Your task to perform on an android device: Search for vegetarian restaurants on Maps Image 0: 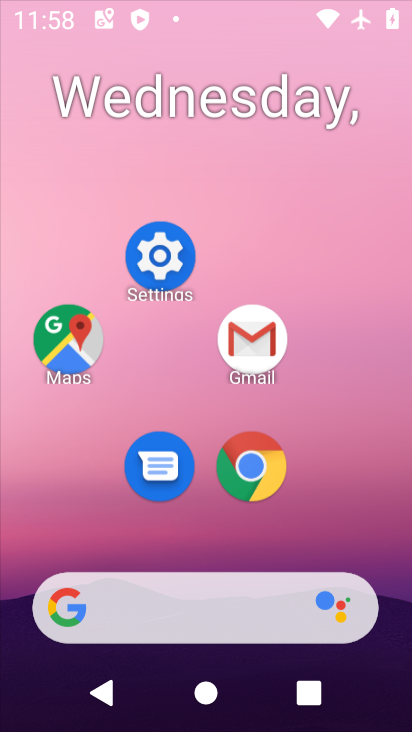
Step 0: drag from (233, 225) to (239, 84)
Your task to perform on an android device: Search for vegetarian restaurants on Maps Image 1: 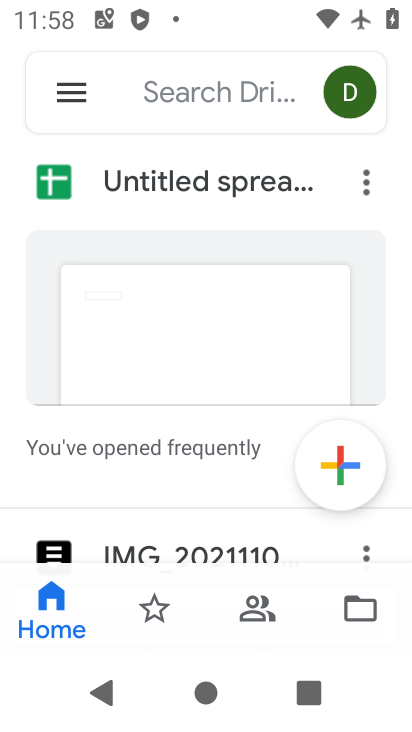
Step 1: drag from (253, 518) to (251, 144)
Your task to perform on an android device: Search for vegetarian restaurants on Maps Image 2: 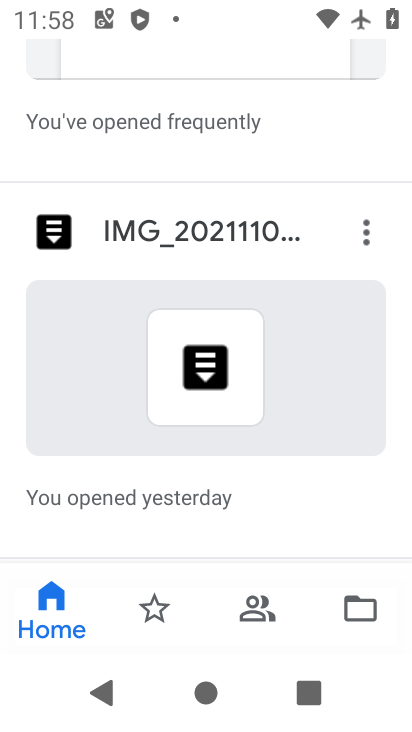
Step 2: drag from (218, 167) to (400, 434)
Your task to perform on an android device: Search for vegetarian restaurants on Maps Image 3: 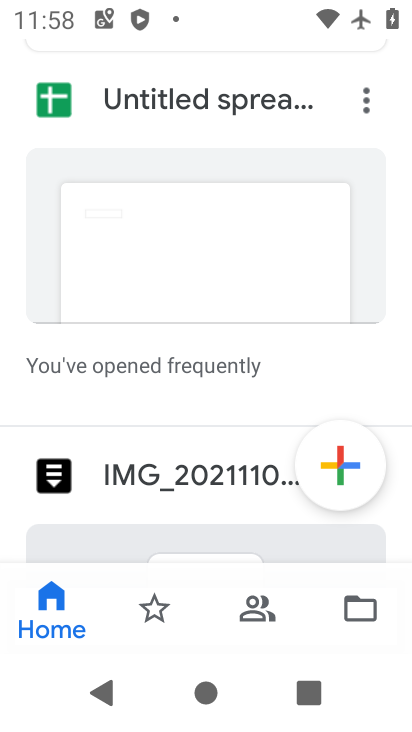
Step 3: press home button
Your task to perform on an android device: Search for vegetarian restaurants on Maps Image 4: 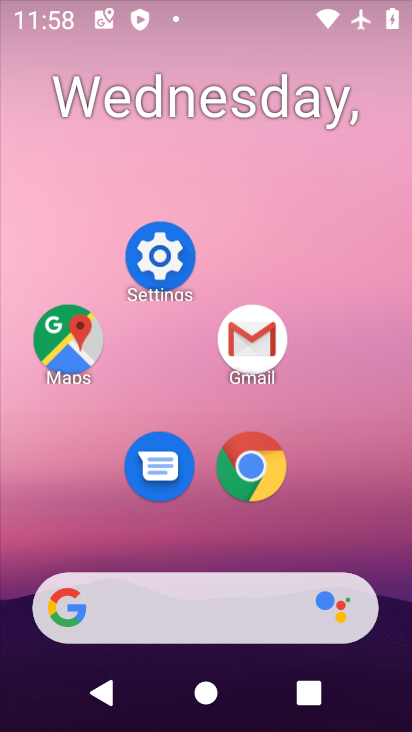
Step 4: drag from (191, 525) to (196, 233)
Your task to perform on an android device: Search for vegetarian restaurants on Maps Image 5: 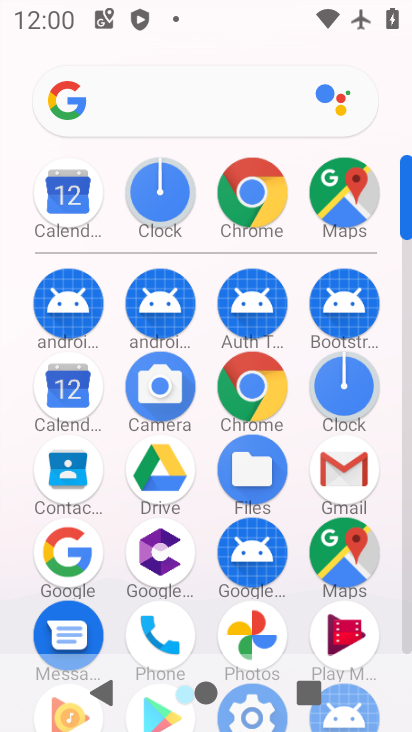
Step 5: click (313, 550)
Your task to perform on an android device: Search for vegetarian restaurants on Maps Image 6: 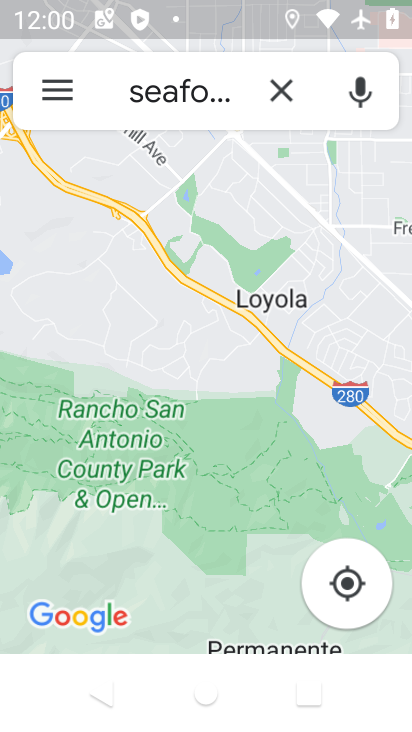
Step 6: drag from (139, 554) to (192, 157)
Your task to perform on an android device: Search for vegetarian restaurants on Maps Image 7: 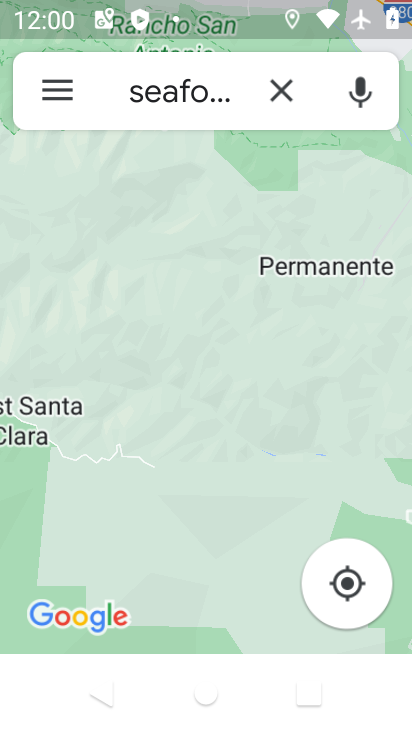
Step 7: drag from (179, 161) to (149, 560)
Your task to perform on an android device: Search for vegetarian restaurants on Maps Image 8: 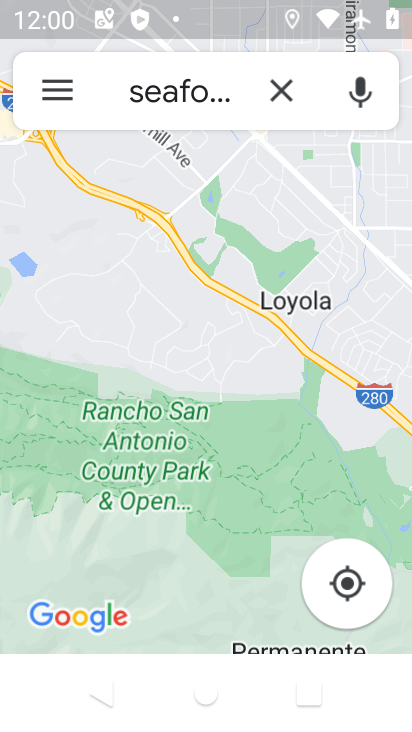
Step 8: drag from (150, 538) to (265, 269)
Your task to perform on an android device: Search for vegetarian restaurants on Maps Image 9: 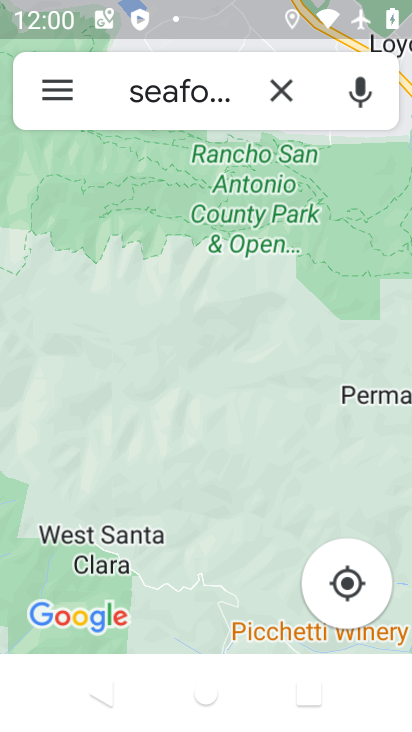
Step 9: click (303, 85)
Your task to perform on an android device: Search for vegetarian restaurants on Maps Image 10: 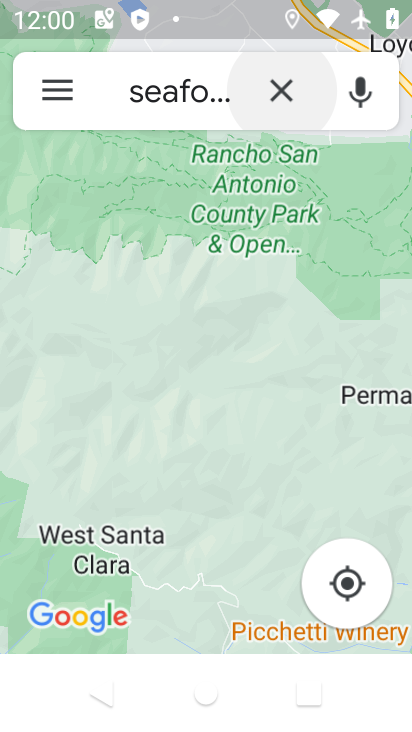
Step 10: click (292, 83)
Your task to perform on an android device: Search for vegetarian restaurants on Maps Image 11: 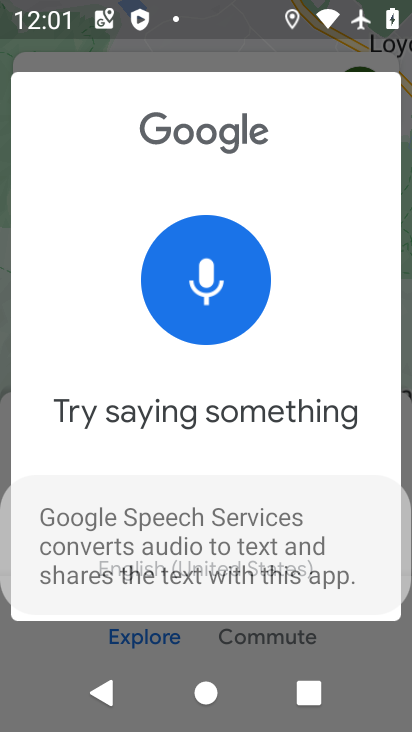
Step 11: click (215, 93)
Your task to perform on an android device: Search for vegetarian restaurants on Maps Image 12: 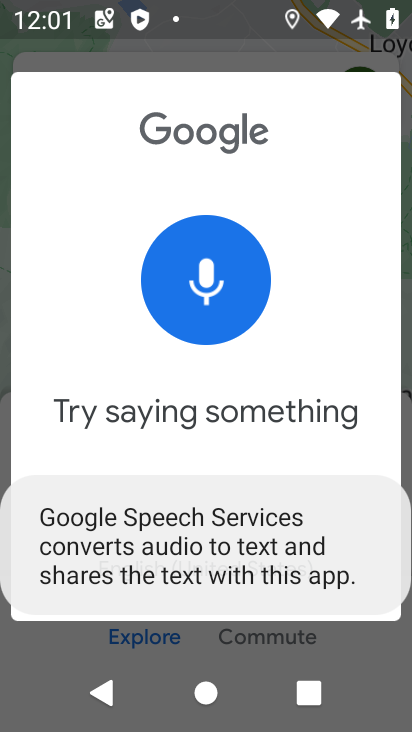
Step 12: drag from (179, 504) to (188, 453)
Your task to perform on an android device: Search for vegetarian restaurants on Maps Image 13: 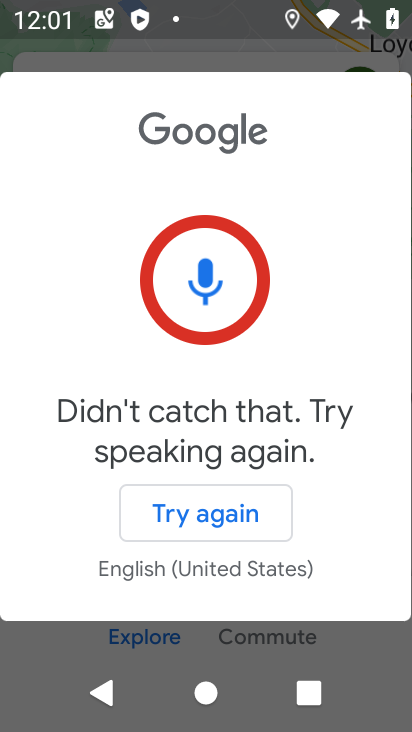
Step 13: click (194, 522)
Your task to perform on an android device: Search for vegetarian restaurants on Maps Image 14: 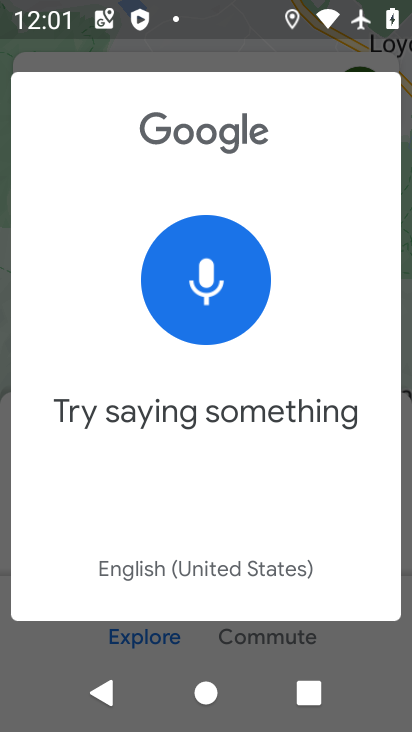
Step 14: press back button
Your task to perform on an android device: Search for vegetarian restaurants on Maps Image 15: 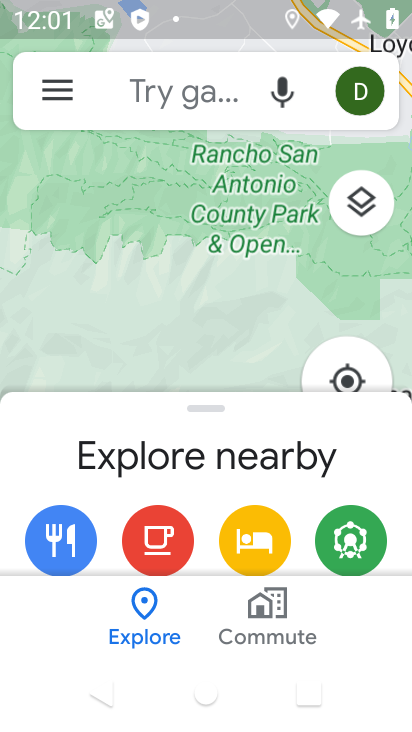
Step 15: click (148, 79)
Your task to perform on an android device: Search for vegetarian restaurants on Maps Image 16: 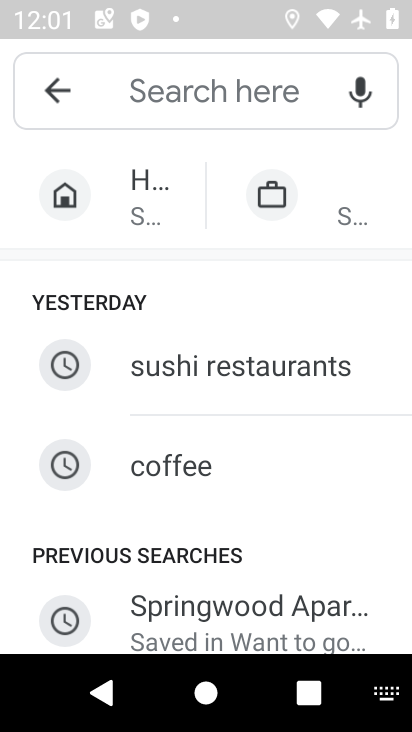
Step 16: drag from (200, 523) to (261, 167)
Your task to perform on an android device: Search for vegetarian restaurants on Maps Image 17: 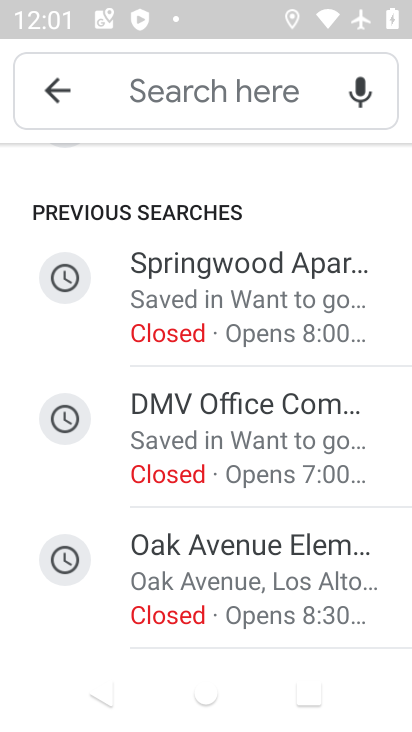
Step 17: drag from (193, 585) to (298, 208)
Your task to perform on an android device: Search for vegetarian restaurants on Maps Image 18: 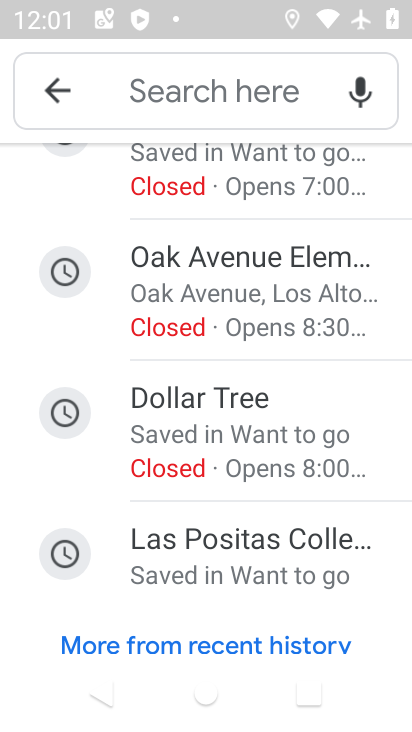
Step 18: click (196, 113)
Your task to perform on an android device: Search for vegetarian restaurants on Maps Image 19: 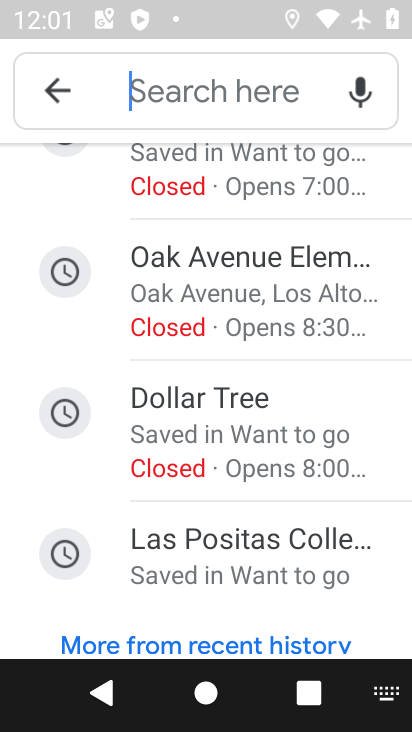
Step 19: click (158, 97)
Your task to perform on an android device: Search for vegetarian restaurants on Maps Image 20: 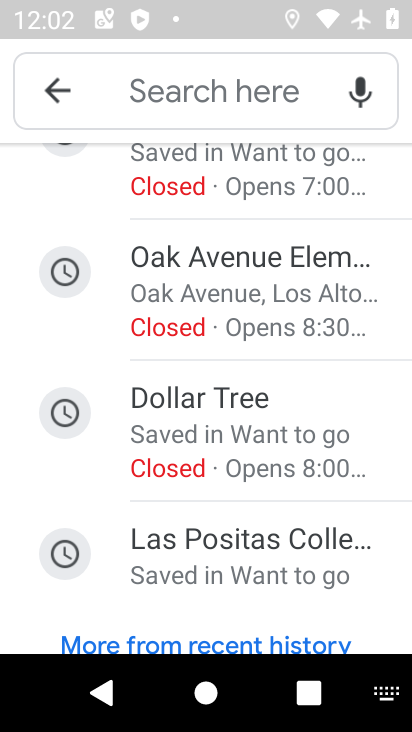
Step 20: type "vegetarian restaurants"
Your task to perform on an android device: Search for vegetarian restaurants on Maps Image 21: 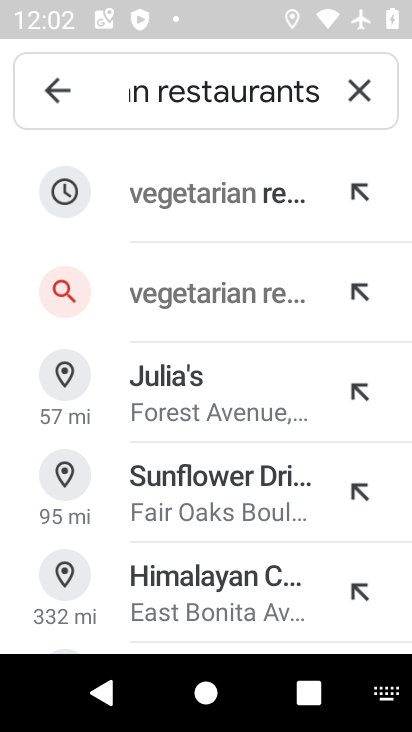
Step 21: click (216, 199)
Your task to perform on an android device: Search for vegetarian restaurants on Maps Image 22: 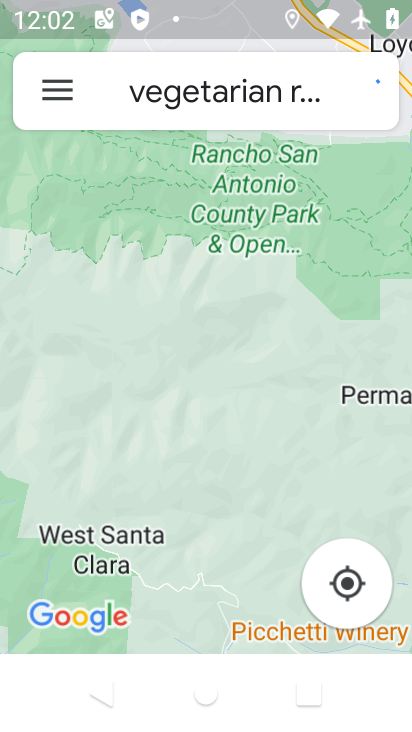
Step 22: task complete